Your task to perform on an android device: Open CNN.com Image 0: 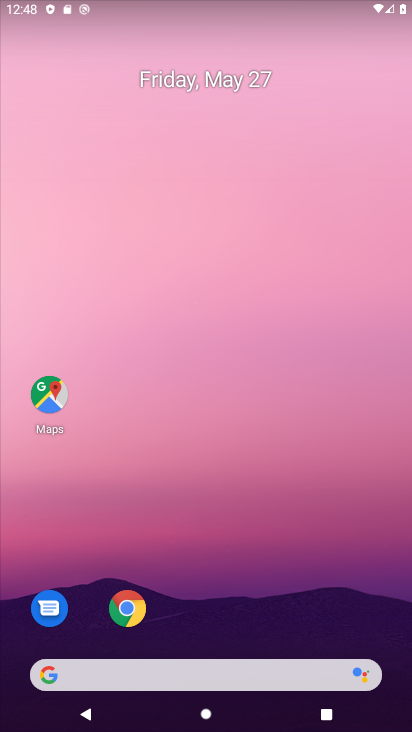
Step 0: click (116, 608)
Your task to perform on an android device: Open CNN.com Image 1: 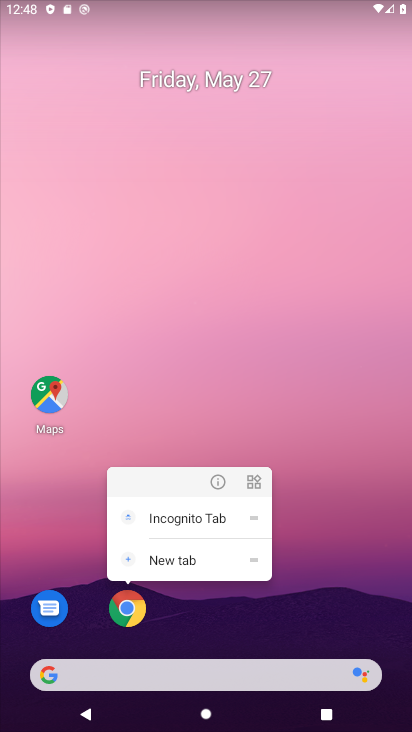
Step 1: click (117, 608)
Your task to perform on an android device: Open CNN.com Image 2: 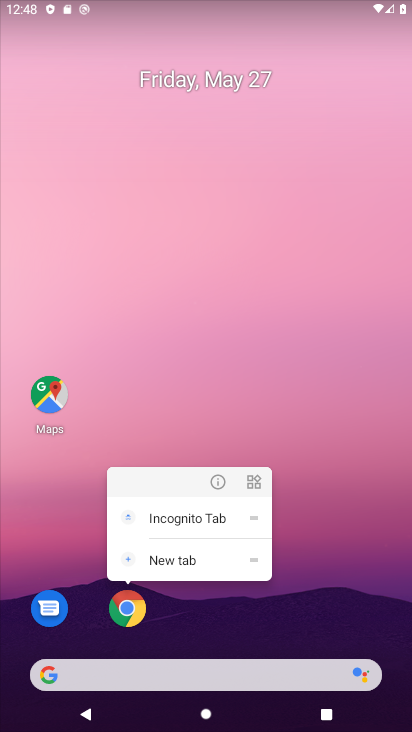
Step 2: click (132, 608)
Your task to perform on an android device: Open CNN.com Image 3: 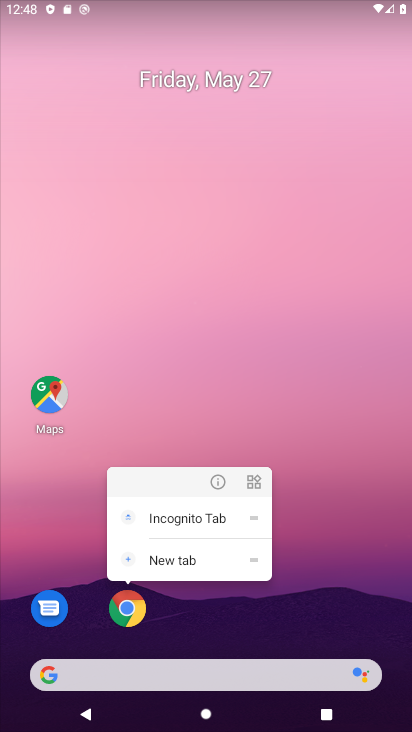
Step 3: click (133, 607)
Your task to perform on an android device: Open CNN.com Image 4: 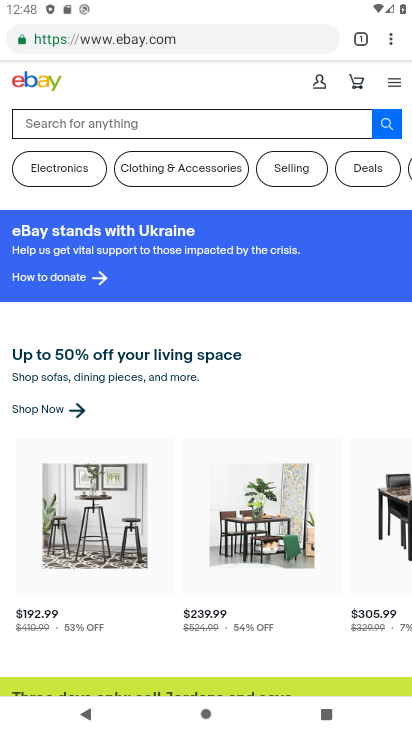
Step 4: drag from (398, 32) to (362, 75)
Your task to perform on an android device: Open CNN.com Image 5: 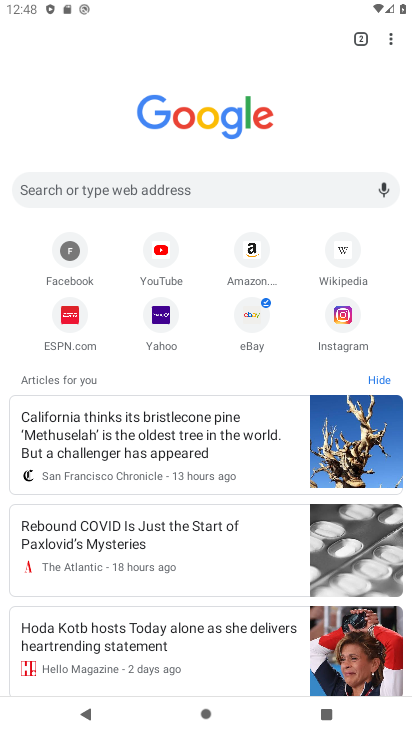
Step 5: click (132, 196)
Your task to perform on an android device: Open CNN.com Image 6: 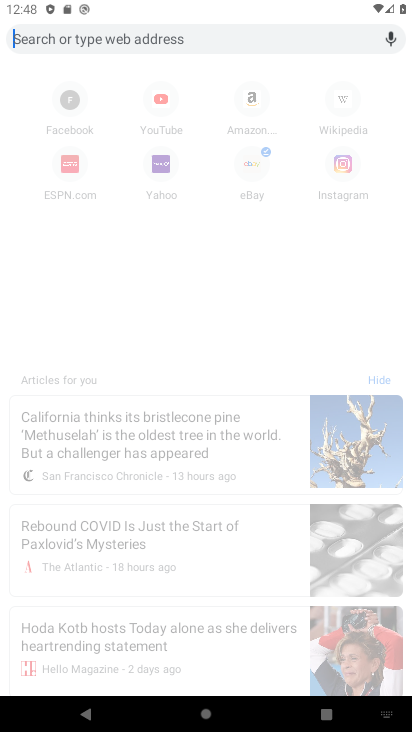
Step 6: type "CNN.com"
Your task to perform on an android device: Open CNN.com Image 7: 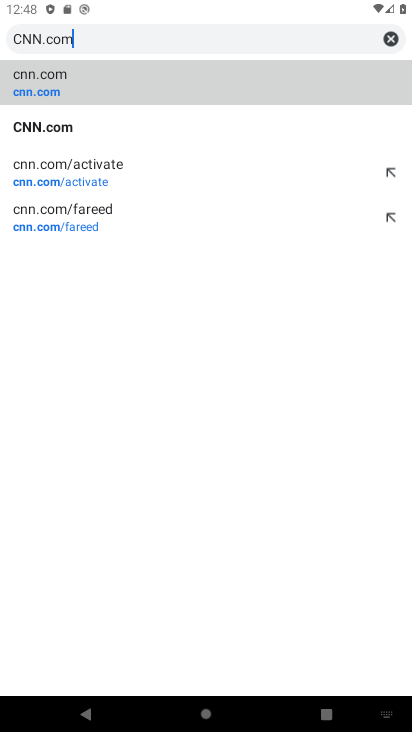
Step 7: click (122, 120)
Your task to perform on an android device: Open CNN.com Image 8: 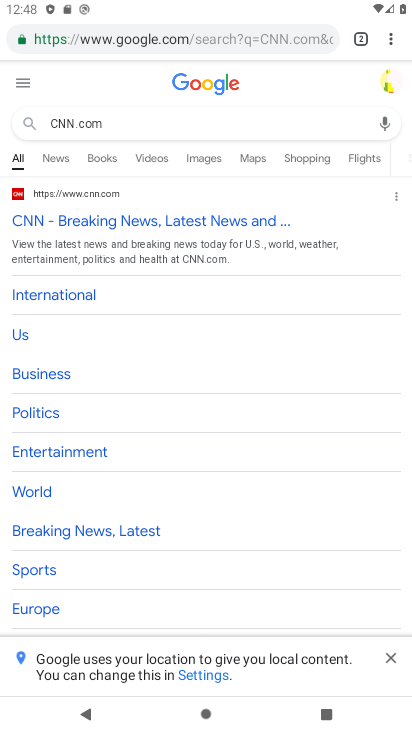
Step 8: click (123, 224)
Your task to perform on an android device: Open CNN.com Image 9: 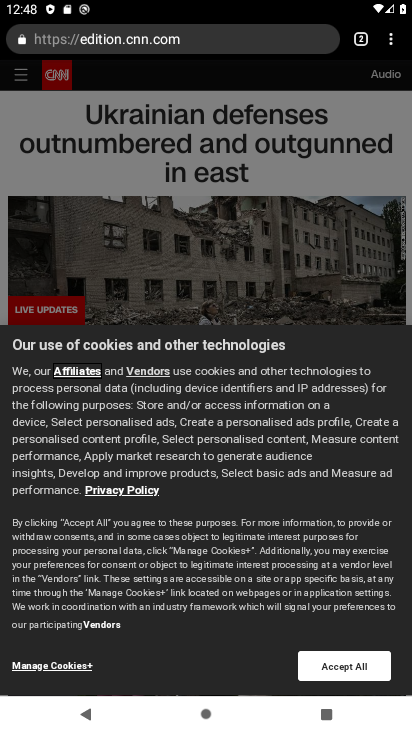
Step 9: click (346, 677)
Your task to perform on an android device: Open CNN.com Image 10: 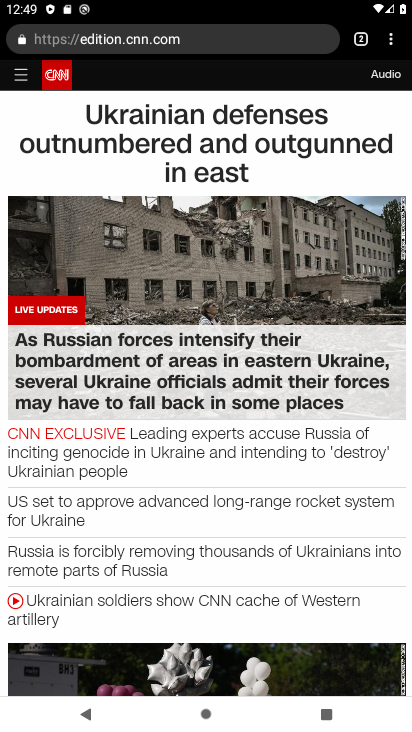
Step 10: task complete